Your task to perform on an android device: Open Yahoo.com Image 0: 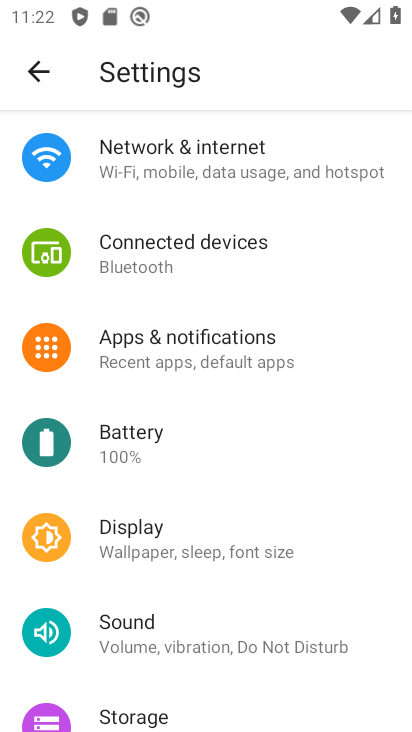
Step 0: press home button
Your task to perform on an android device: Open Yahoo.com Image 1: 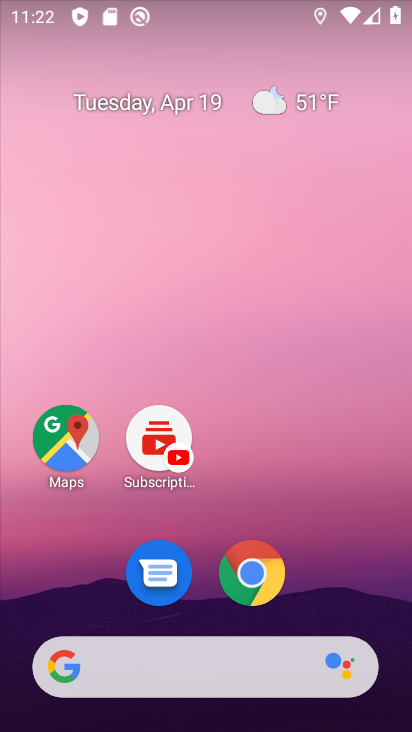
Step 1: click (253, 565)
Your task to perform on an android device: Open Yahoo.com Image 2: 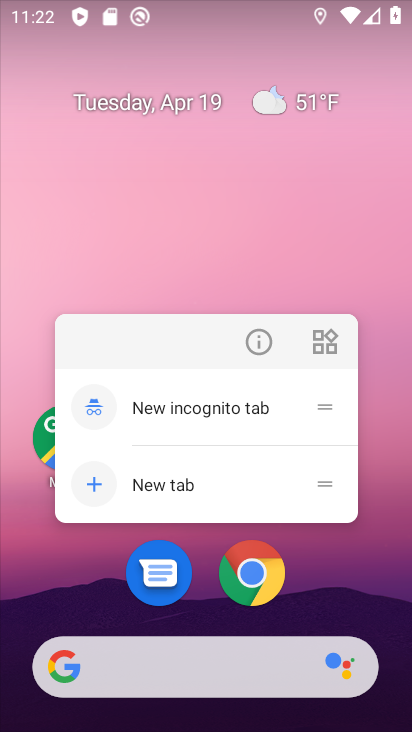
Step 2: click (251, 562)
Your task to perform on an android device: Open Yahoo.com Image 3: 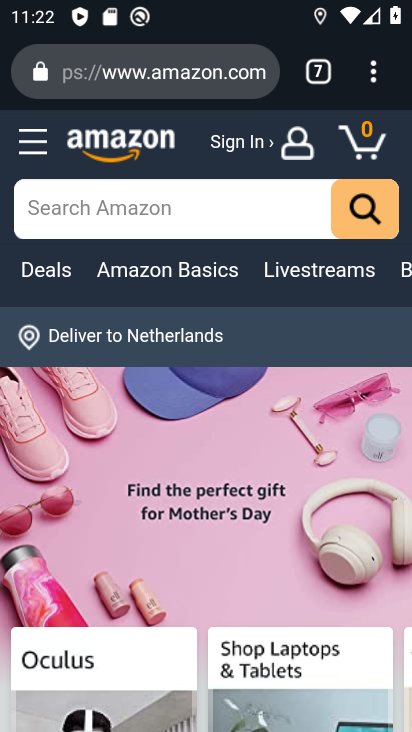
Step 3: click (336, 69)
Your task to perform on an android device: Open Yahoo.com Image 4: 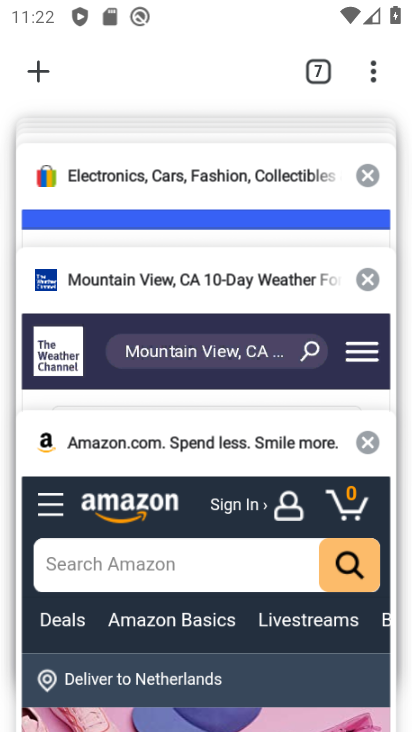
Step 4: click (31, 77)
Your task to perform on an android device: Open Yahoo.com Image 5: 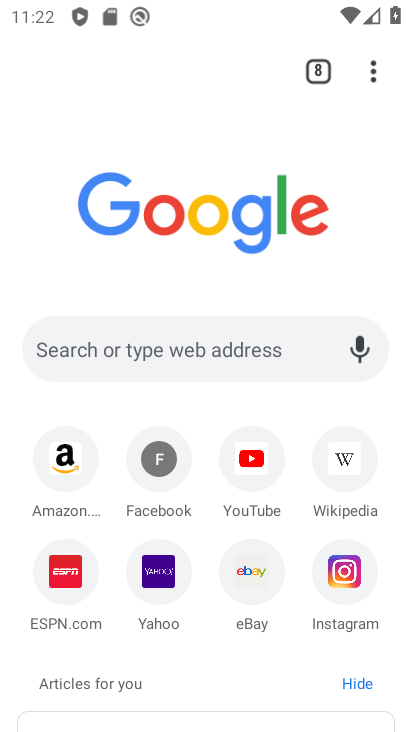
Step 5: click (158, 582)
Your task to perform on an android device: Open Yahoo.com Image 6: 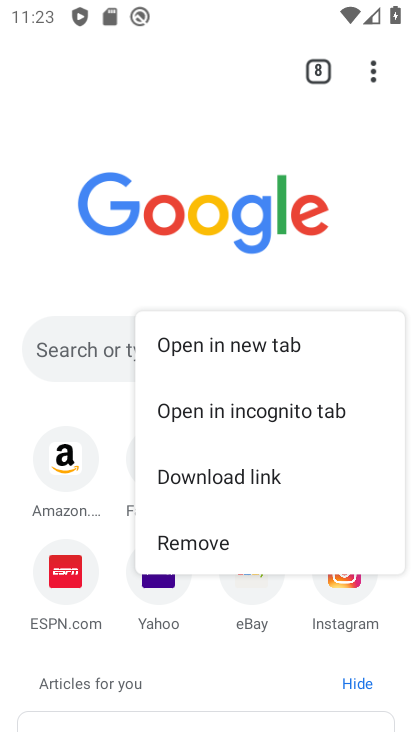
Step 6: click (159, 581)
Your task to perform on an android device: Open Yahoo.com Image 7: 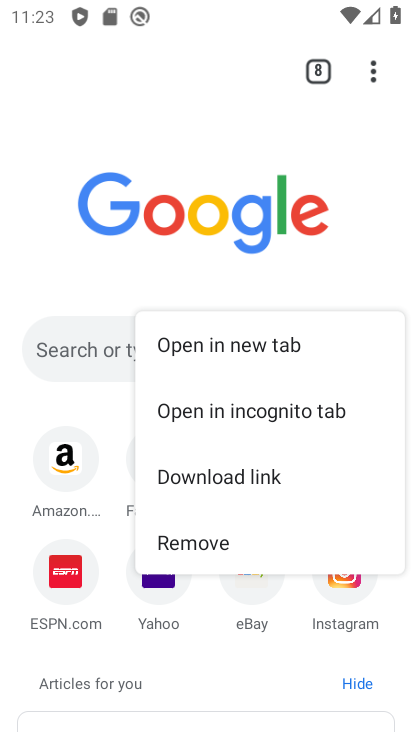
Step 7: click (159, 581)
Your task to perform on an android device: Open Yahoo.com Image 8: 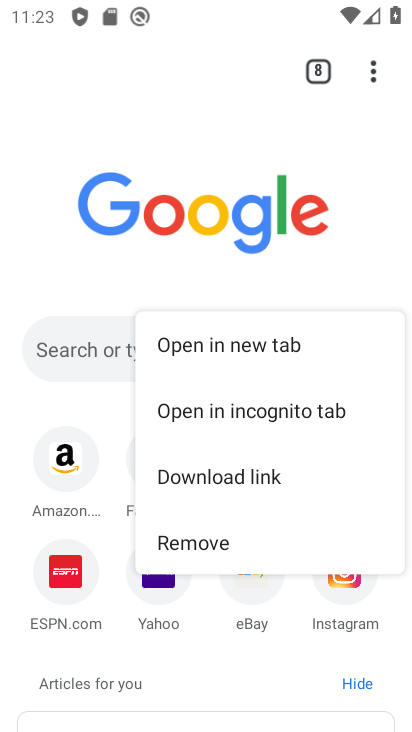
Step 8: click (160, 589)
Your task to perform on an android device: Open Yahoo.com Image 9: 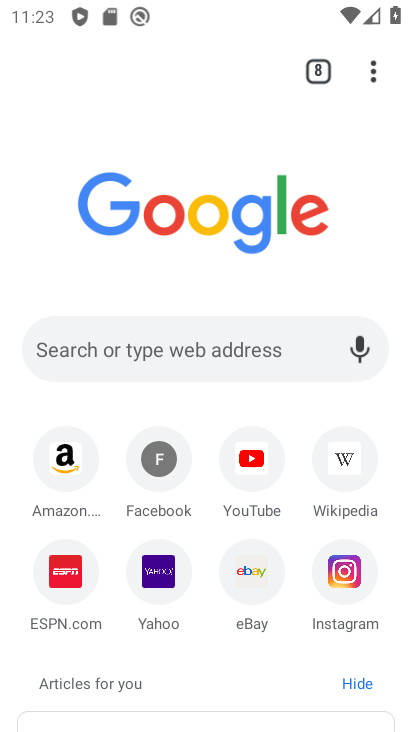
Step 9: click (165, 566)
Your task to perform on an android device: Open Yahoo.com Image 10: 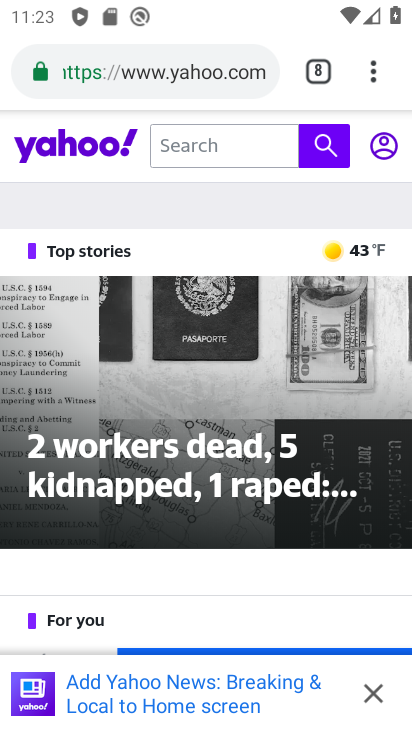
Step 10: task complete